Your task to perform on an android device: allow notifications from all sites in the chrome app Image 0: 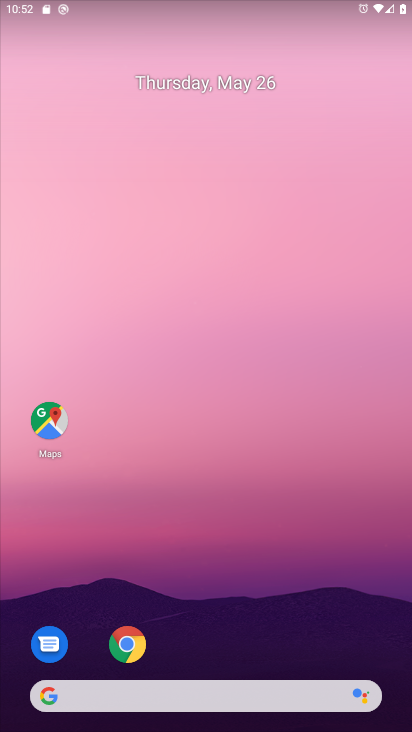
Step 0: drag from (356, 655) to (365, 268)
Your task to perform on an android device: allow notifications from all sites in the chrome app Image 1: 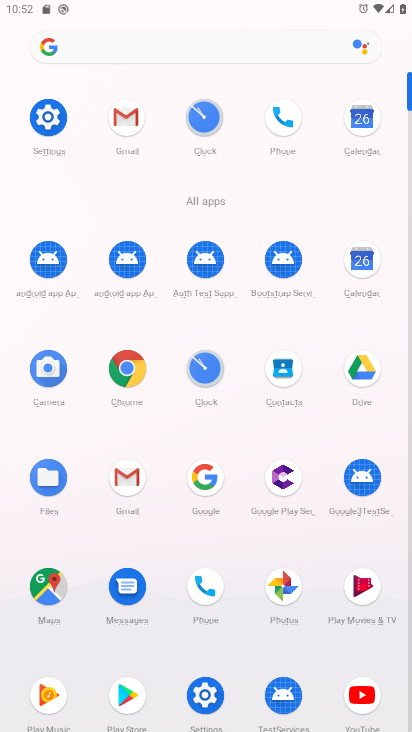
Step 1: click (131, 376)
Your task to perform on an android device: allow notifications from all sites in the chrome app Image 2: 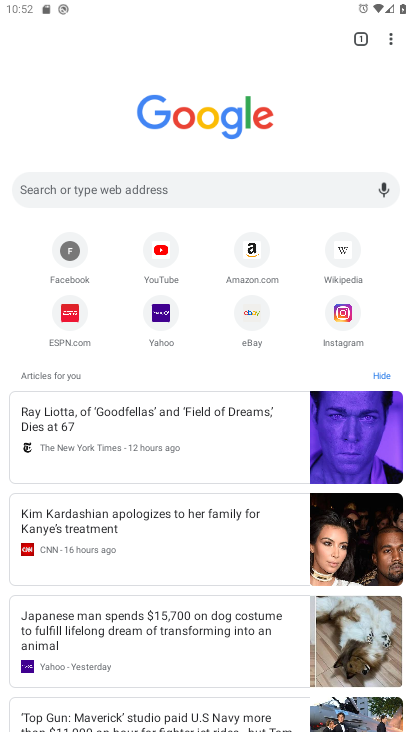
Step 2: click (388, 38)
Your task to perform on an android device: allow notifications from all sites in the chrome app Image 3: 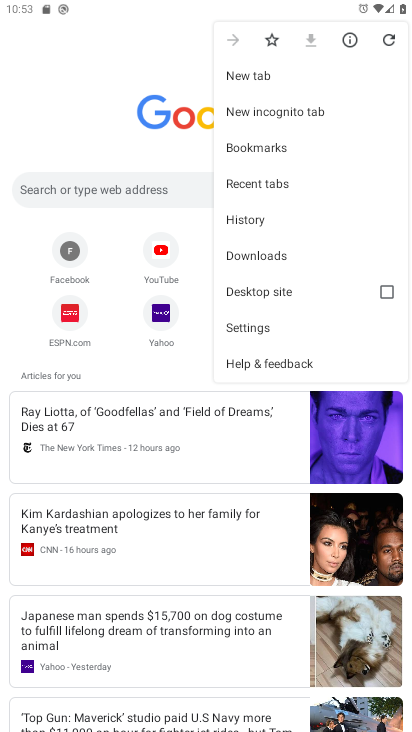
Step 3: click (263, 331)
Your task to perform on an android device: allow notifications from all sites in the chrome app Image 4: 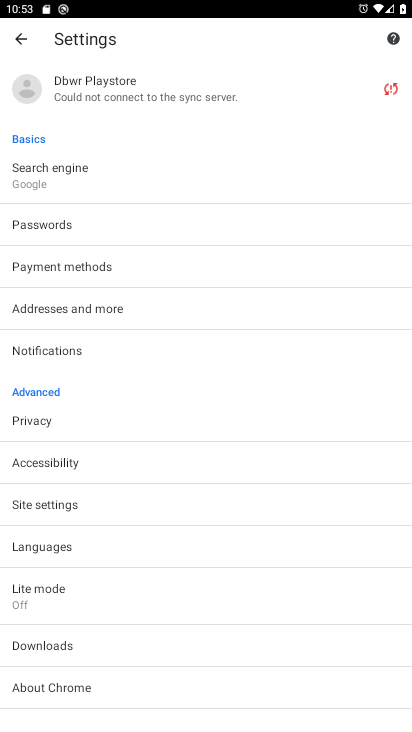
Step 4: drag from (262, 588) to (259, 451)
Your task to perform on an android device: allow notifications from all sites in the chrome app Image 5: 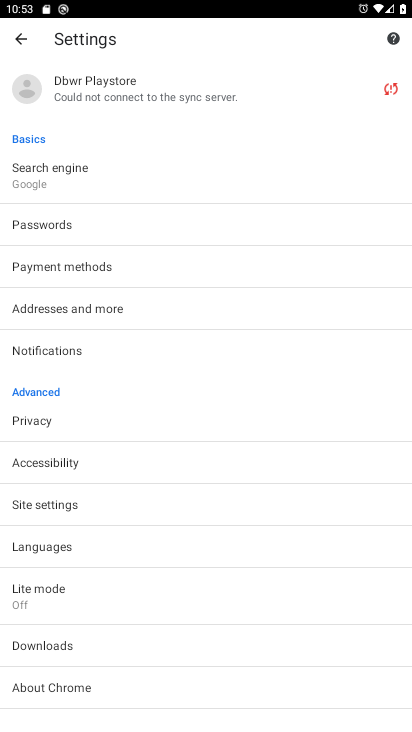
Step 5: click (233, 504)
Your task to perform on an android device: allow notifications from all sites in the chrome app Image 6: 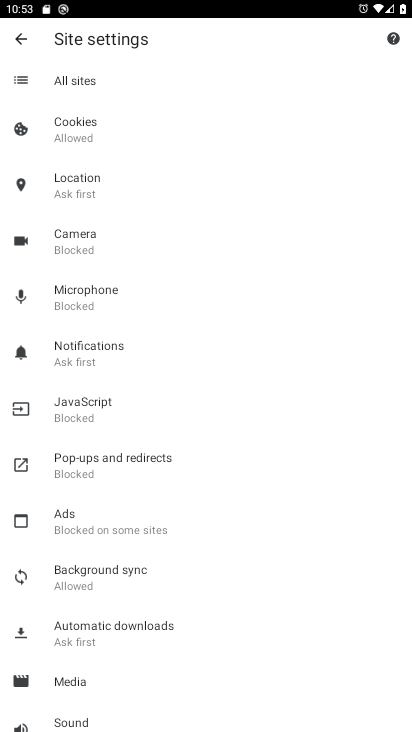
Step 6: click (112, 354)
Your task to perform on an android device: allow notifications from all sites in the chrome app Image 7: 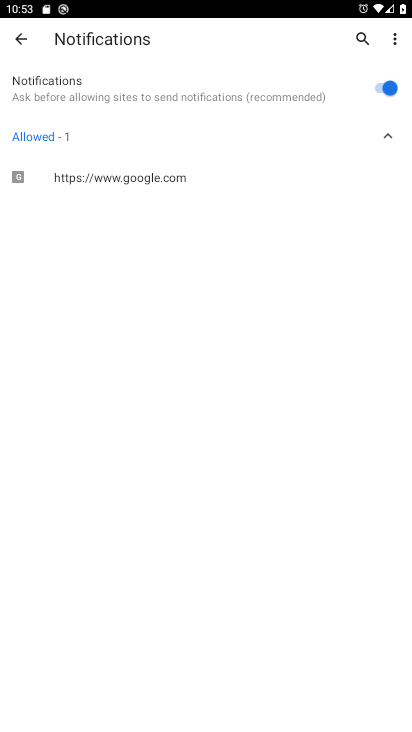
Step 7: task complete